Your task to perform on an android device: set an alarm Image 0: 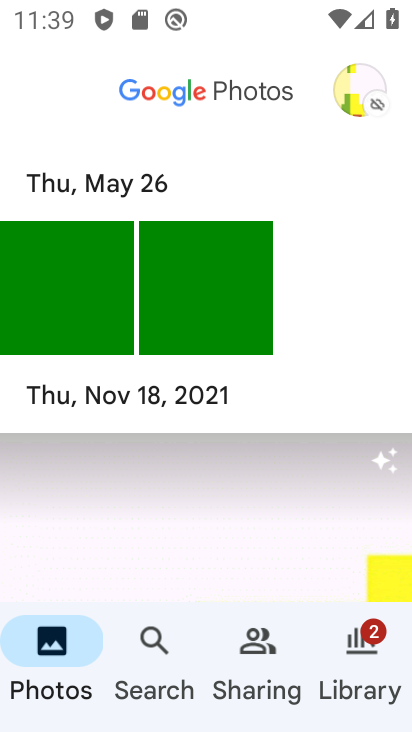
Step 0: press home button
Your task to perform on an android device: set an alarm Image 1: 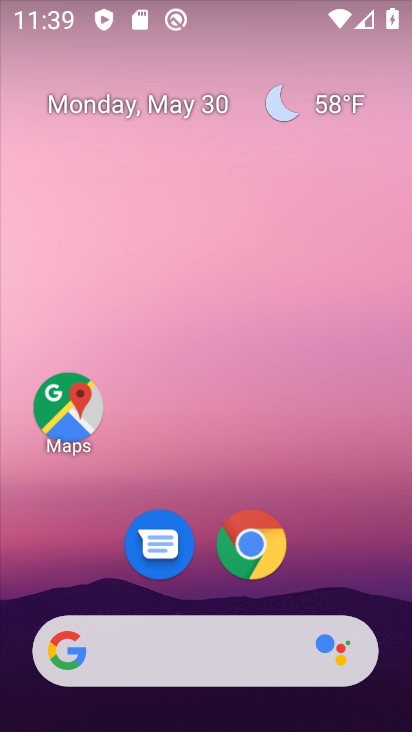
Step 1: drag from (355, 547) to (297, 200)
Your task to perform on an android device: set an alarm Image 2: 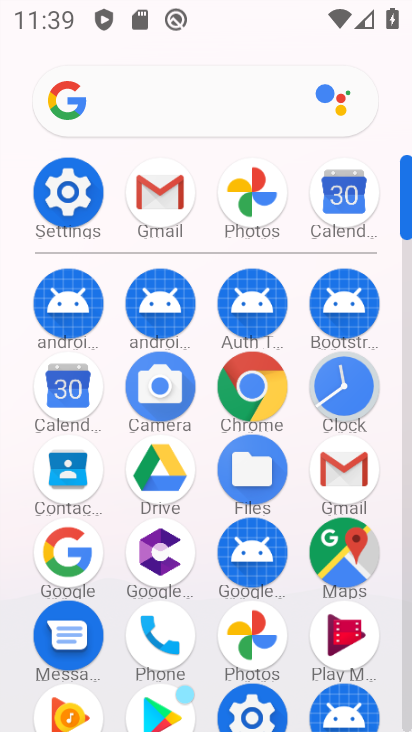
Step 2: click (337, 396)
Your task to perform on an android device: set an alarm Image 3: 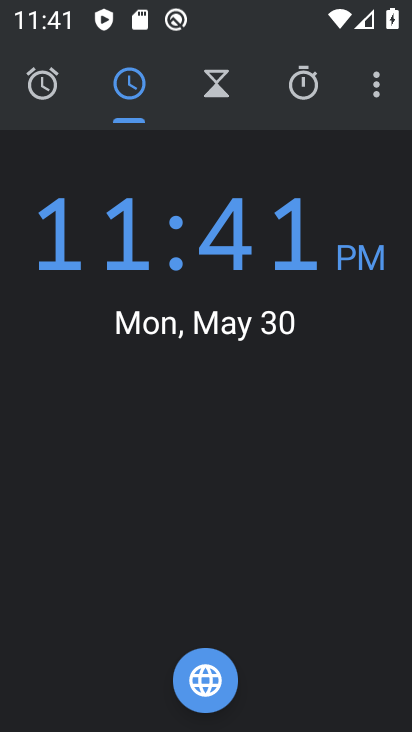
Step 3: task complete